Your task to perform on an android device: turn off picture-in-picture Image 0: 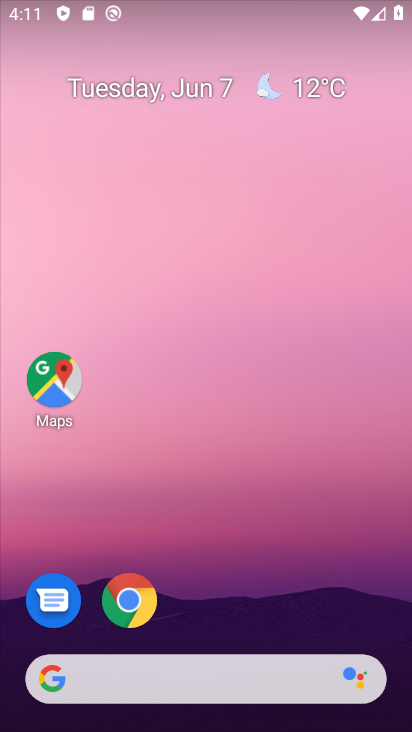
Step 0: click (122, 613)
Your task to perform on an android device: turn off picture-in-picture Image 1: 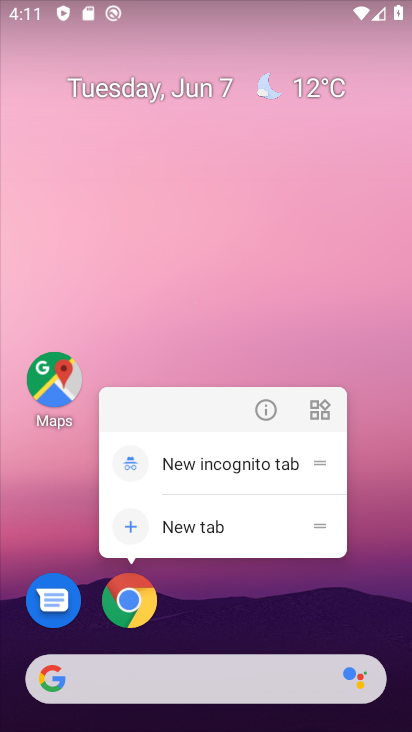
Step 1: click (262, 413)
Your task to perform on an android device: turn off picture-in-picture Image 2: 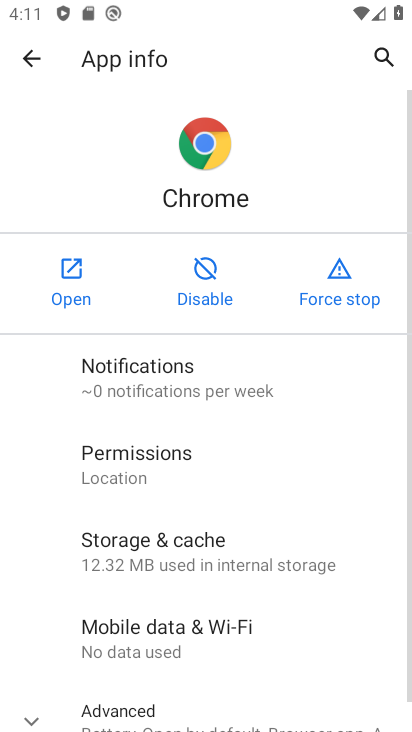
Step 2: drag from (155, 705) to (147, 214)
Your task to perform on an android device: turn off picture-in-picture Image 3: 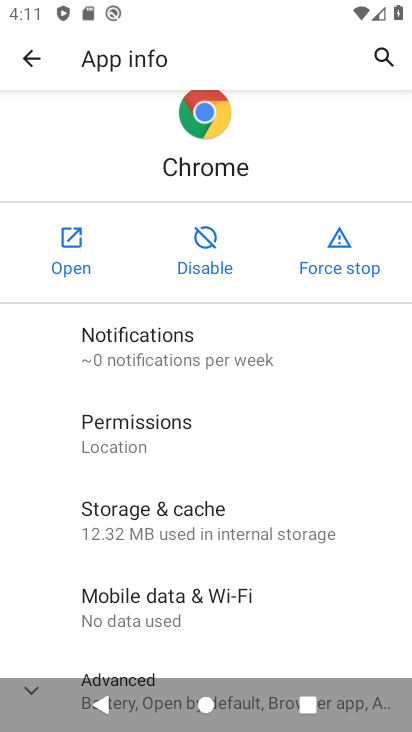
Step 3: drag from (109, 630) to (95, 239)
Your task to perform on an android device: turn off picture-in-picture Image 4: 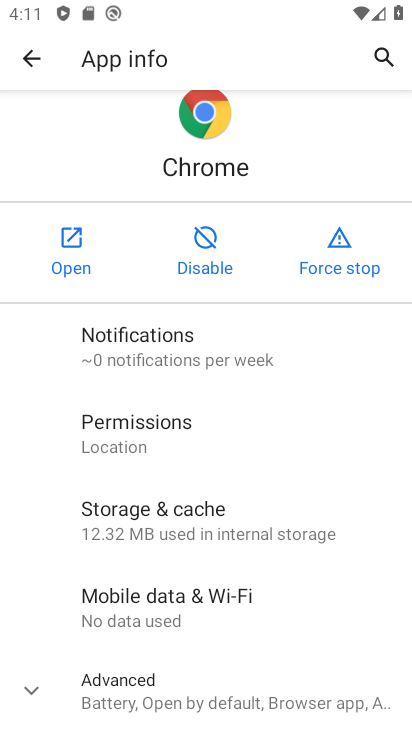
Step 4: click (136, 688)
Your task to perform on an android device: turn off picture-in-picture Image 5: 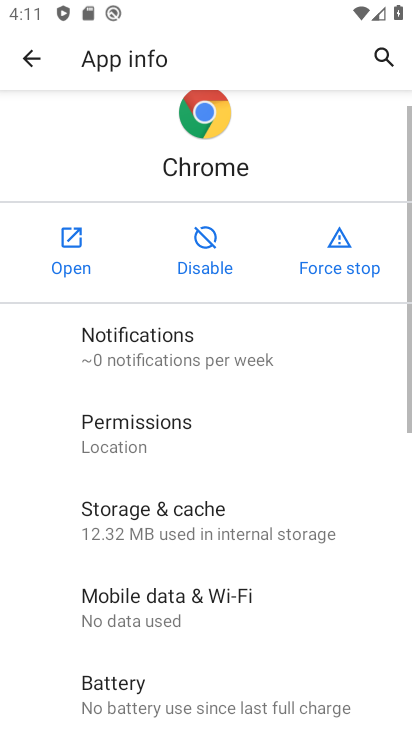
Step 5: drag from (259, 678) to (214, 342)
Your task to perform on an android device: turn off picture-in-picture Image 6: 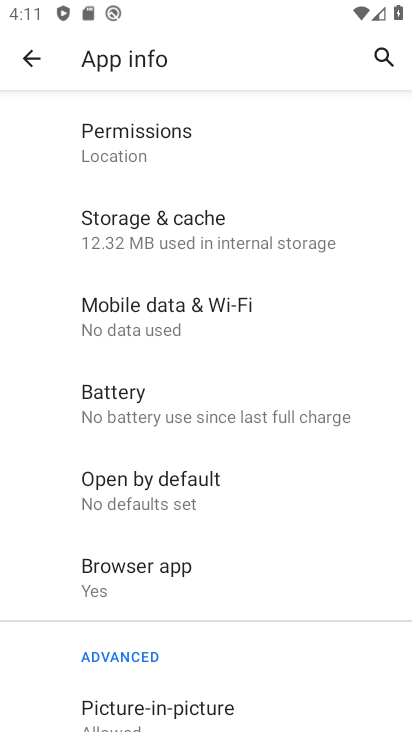
Step 6: drag from (157, 698) to (151, 277)
Your task to perform on an android device: turn off picture-in-picture Image 7: 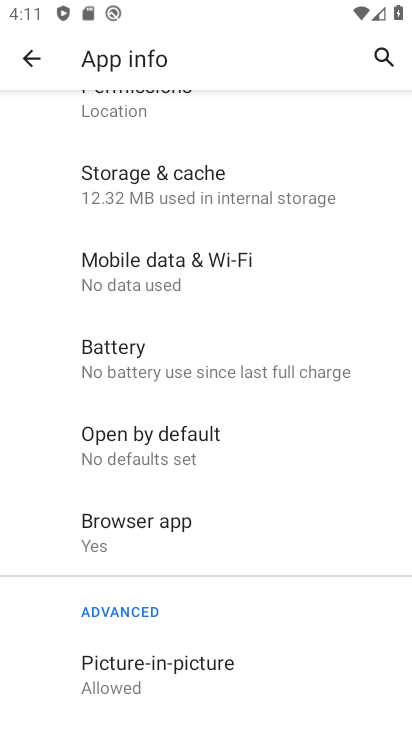
Step 7: click (174, 659)
Your task to perform on an android device: turn off picture-in-picture Image 8: 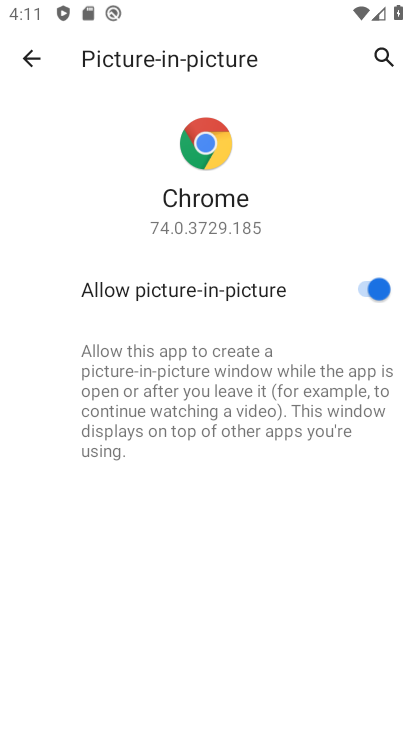
Step 8: click (365, 286)
Your task to perform on an android device: turn off picture-in-picture Image 9: 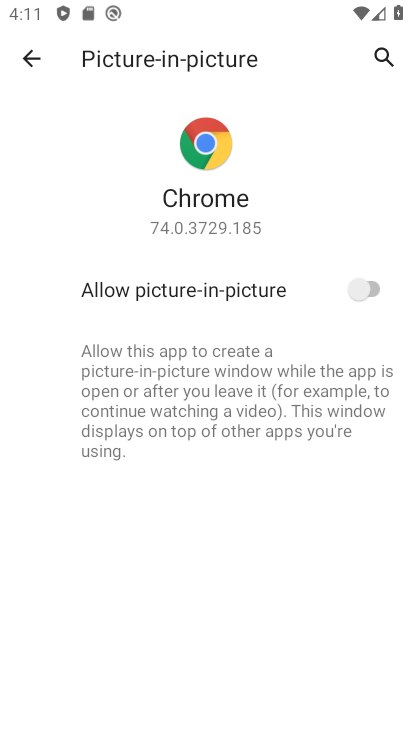
Step 9: task complete